Your task to perform on an android device: set the timer Image 0: 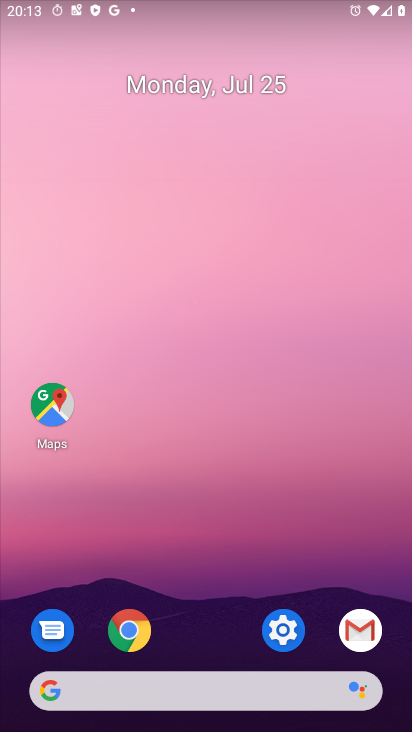
Step 0: drag from (212, 691) to (186, 327)
Your task to perform on an android device: set the timer Image 1: 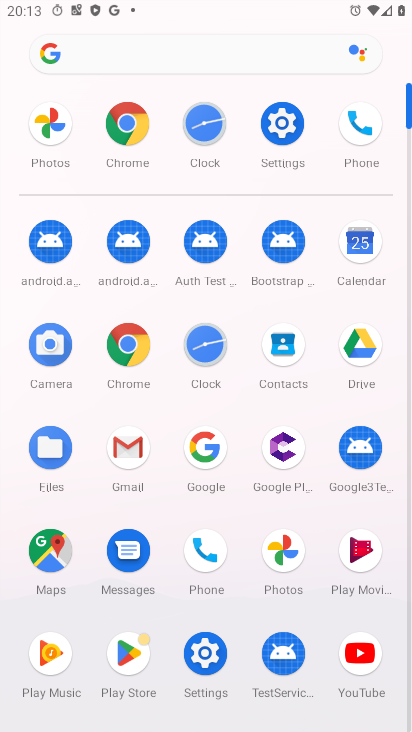
Step 1: click (210, 340)
Your task to perform on an android device: set the timer Image 2: 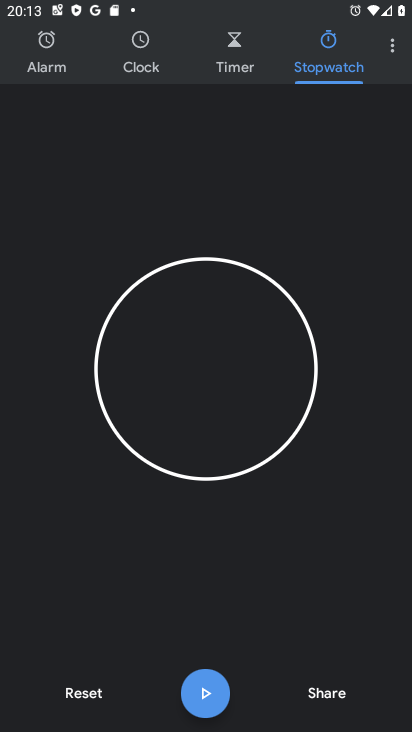
Step 2: click (225, 87)
Your task to perform on an android device: set the timer Image 3: 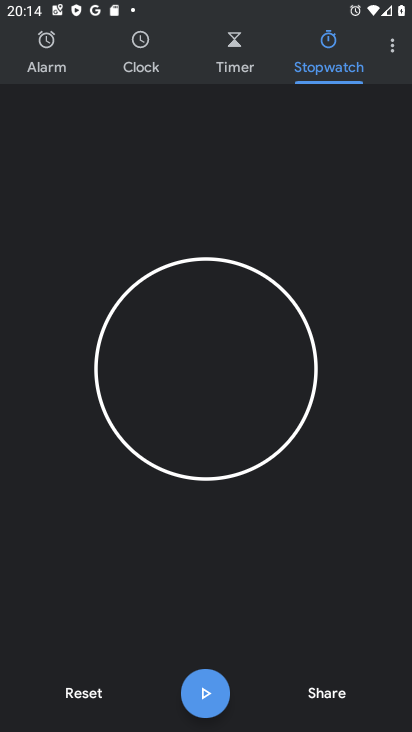
Step 3: click (216, 68)
Your task to perform on an android device: set the timer Image 4: 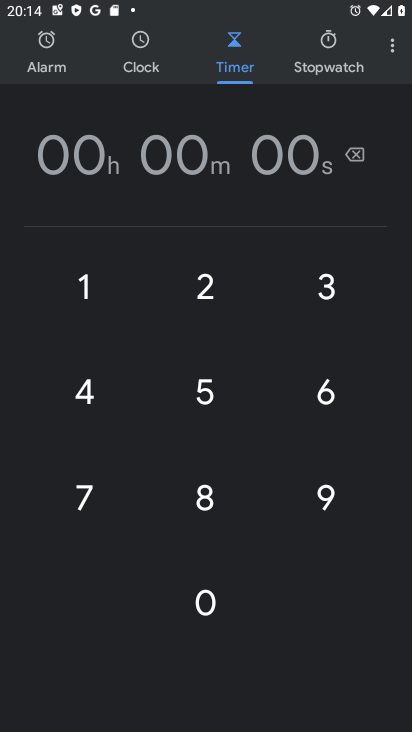
Step 4: click (222, 402)
Your task to perform on an android device: set the timer Image 5: 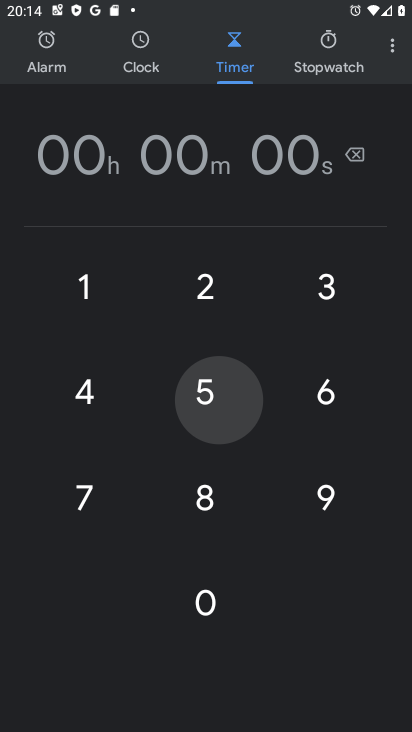
Step 5: click (180, 384)
Your task to perform on an android device: set the timer Image 6: 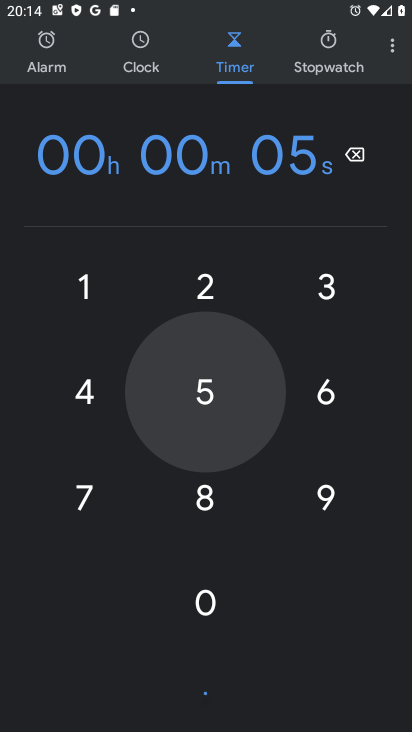
Step 6: click (155, 408)
Your task to perform on an android device: set the timer Image 7: 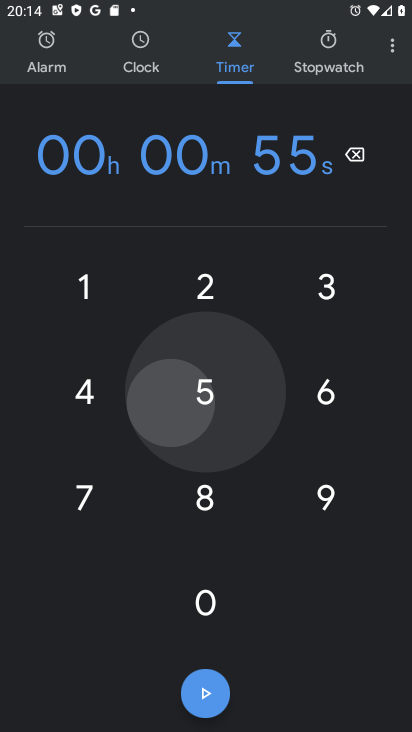
Step 7: click (178, 475)
Your task to perform on an android device: set the timer Image 8: 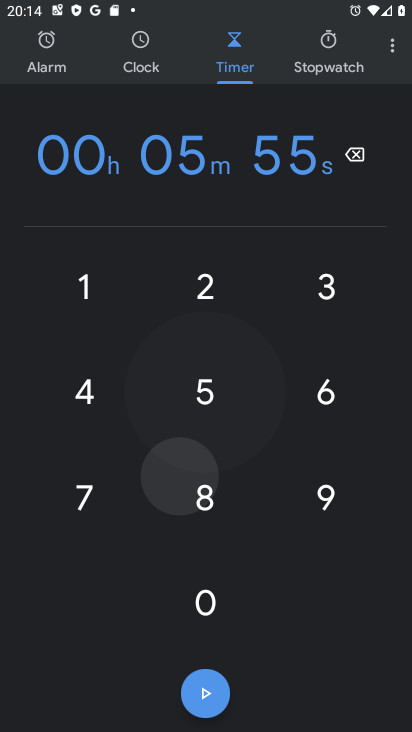
Step 8: click (189, 495)
Your task to perform on an android device: set the timer Image 9: 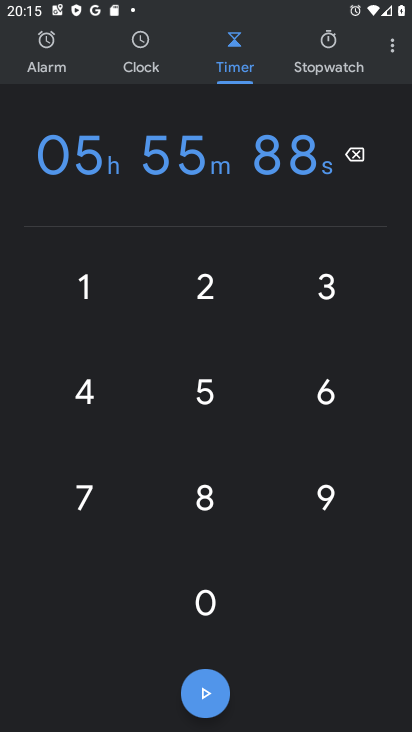
Step 9: task complete